Your task to perform on an android device: Turn off the flashlight Image 0: 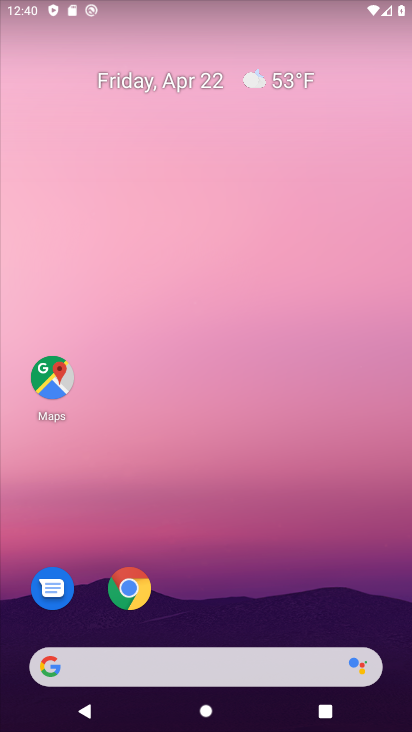
Step 0: drag from (253, 536) to (305, 116)
Your task to perform on an android device: Turn off the flashlight Image 1: 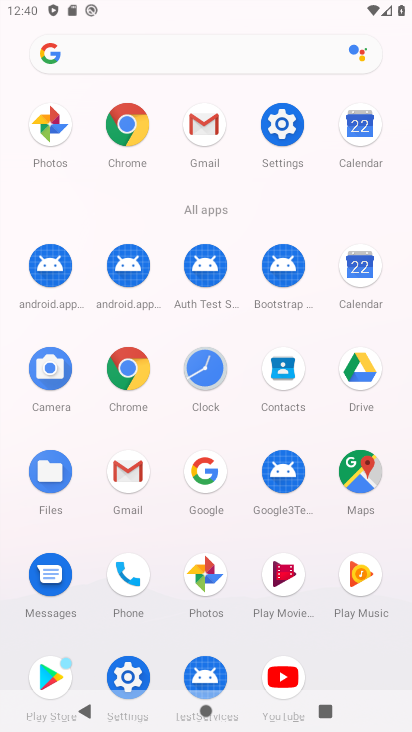
Step 1: click (278, 132)
Your task to perform on an android device: Turn off the flashlight Image 2: 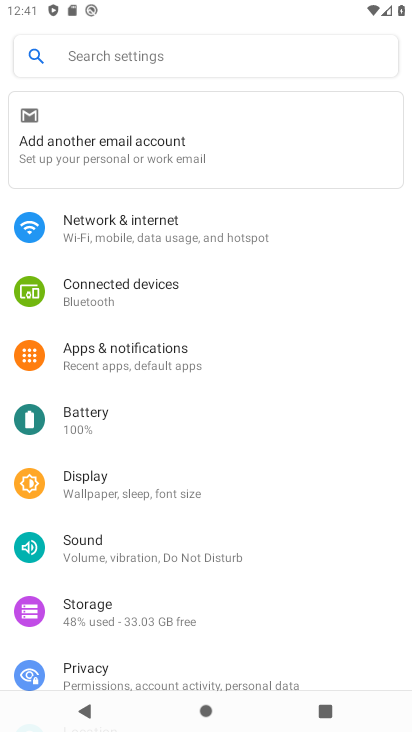
Step 2: click (133, 49)
Your task to perform on an android device: Turn off the flashlight Image 3: 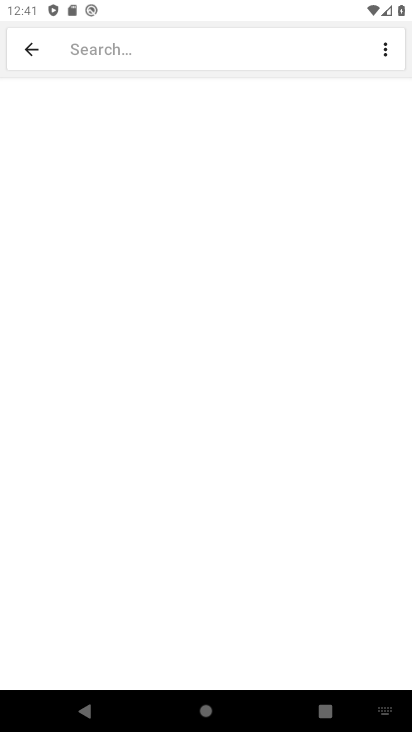
Step 3: type "flashlight"
Your task to perform on an android device: Turn off the flashlight Image 4: 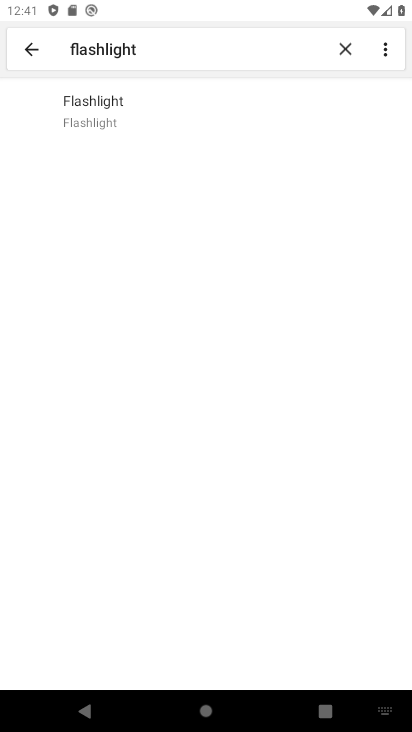
Step 4: click (191, 121)
Your task to perform on an android device: Turn off the flashlight Image 5: 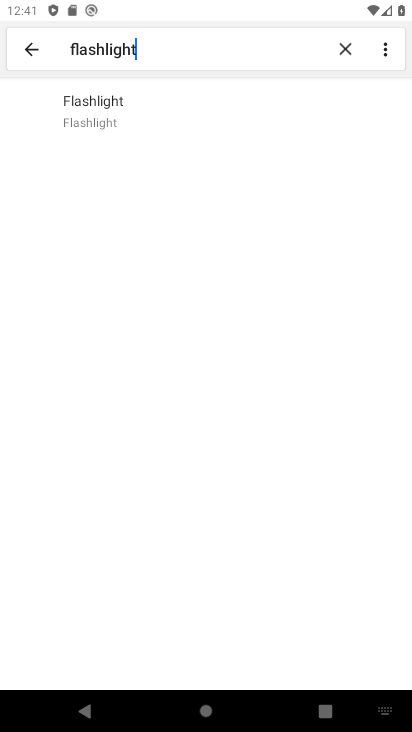
Step 5: task complete